Your task to perform on an android device: find snoozed emails in the gmail app Image 0: 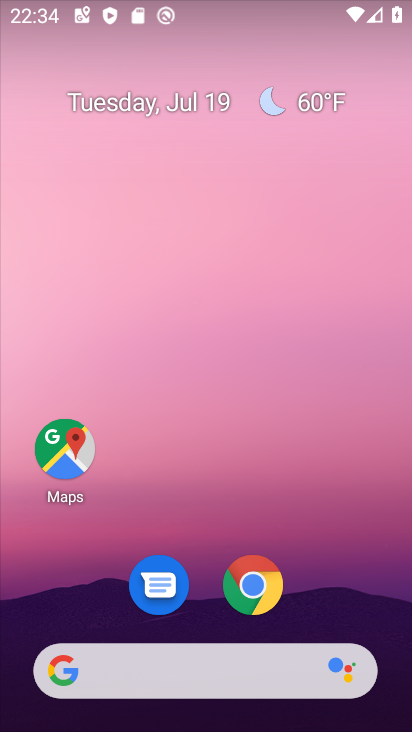
Step 0: drag from (249, 498) to (281, 56)
Your task to perform on an android device: find snoozed emails in the gmail app Image 1: 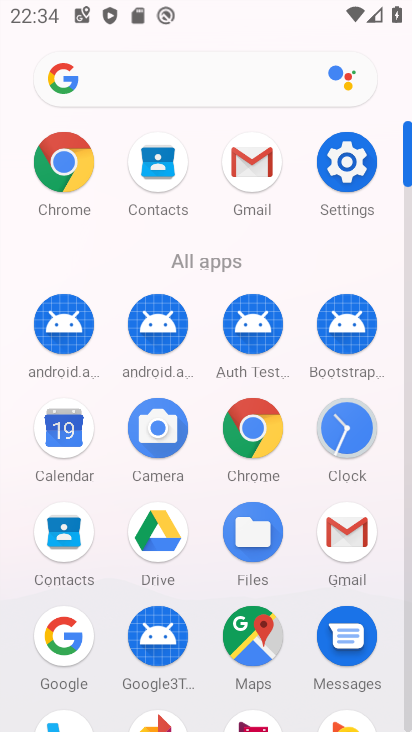
Step 1: click (261, 165)
Your task to perform on an android device: find snoozed emails in the gmail app Image 2: 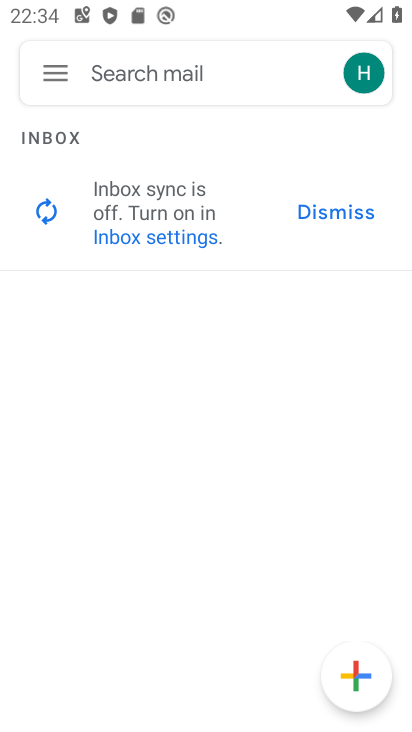
Step 2: click (336, 209)
Your task to perform on an android device: find snoozed emails in the gmail app Image 3: 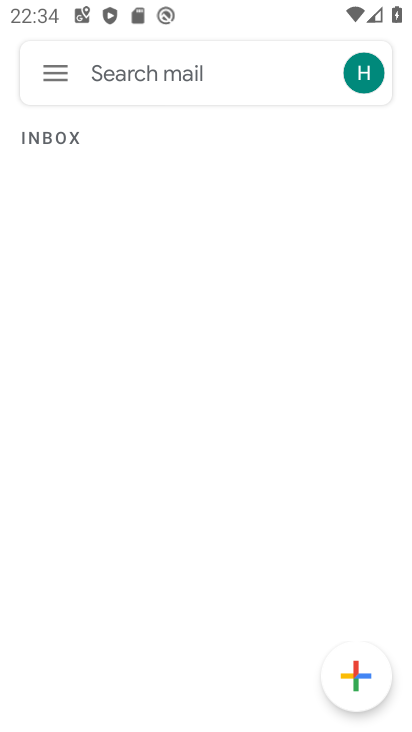
Step 3: click (51, 75)
Your task to perform on an android device: find snoozed emails in the gmail app Image 4: 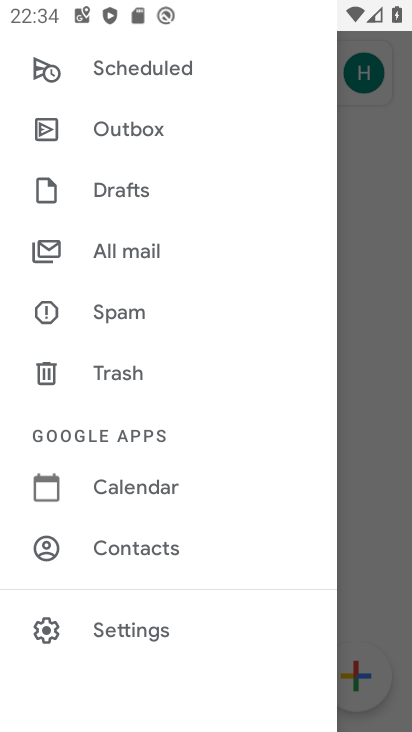
Step 4: drag from (193, 132) to (166, 611)
Your task to perform on an android device: find snoozed emails in the gmail app Image 5: 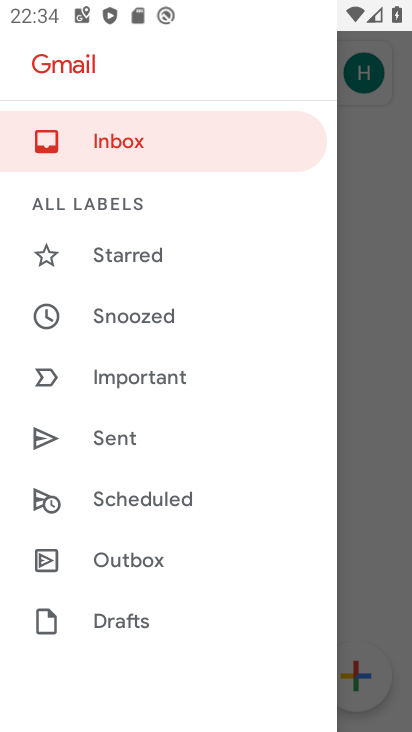
Step 5: click (132, 315)
Your task to perform on an android device: find snoozed emails in the gmail app Image 6: 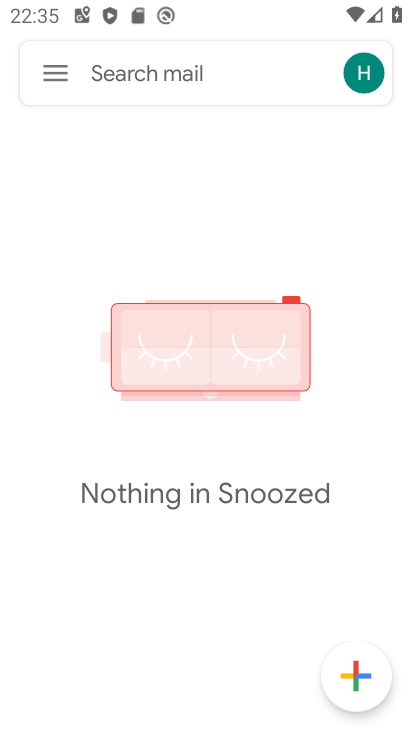
Step 6: task complete